Your task to perform on an android device: check google app version Image 0: 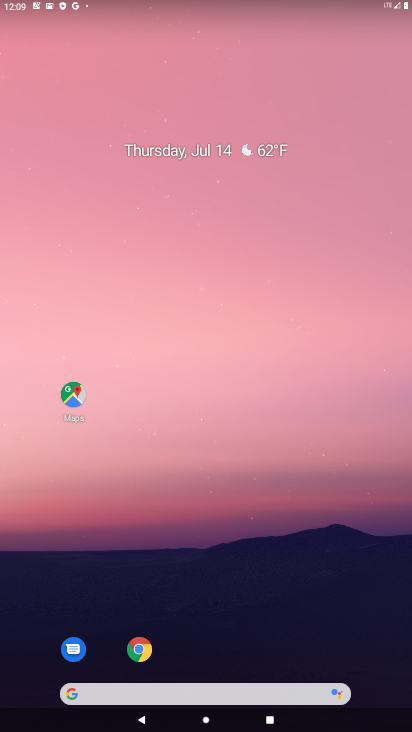
Step 0: drag from (319, 645) to (64, 181)
Your task to perform on an android device: check google app version Image 1: 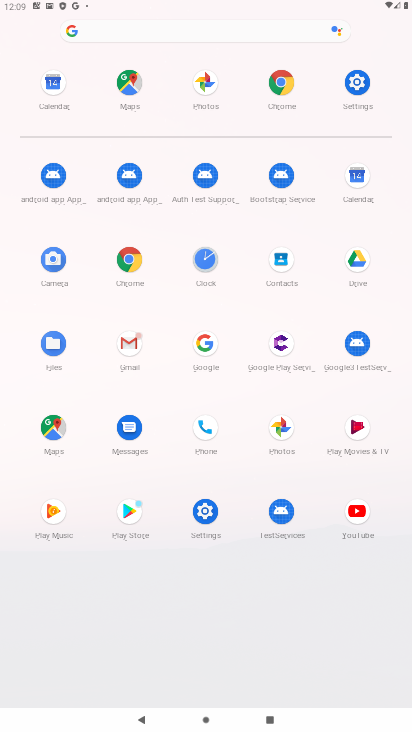
Step 1: click (204, 361)
Your task to perform on an android device: check google app version Image 2: 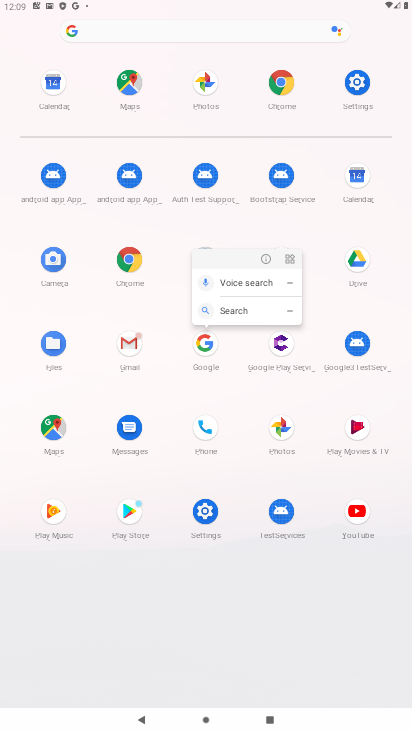
Step 2: click (270, 264)
Your task to perform on an android device: check google app version Image 3: 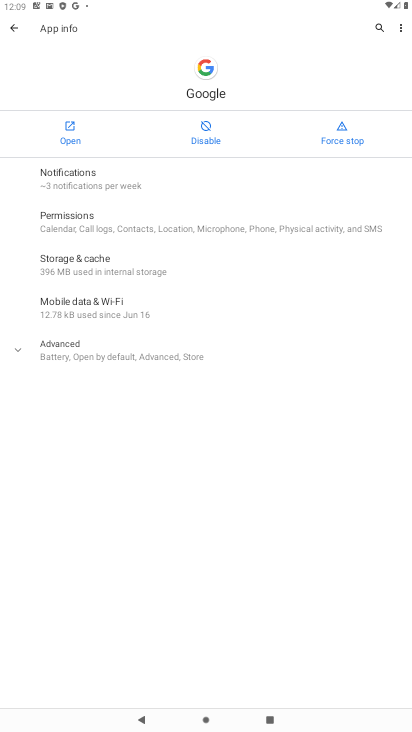
Step 3: click (69, 345)
Your task to perform on an android device: check google app version Image 4: 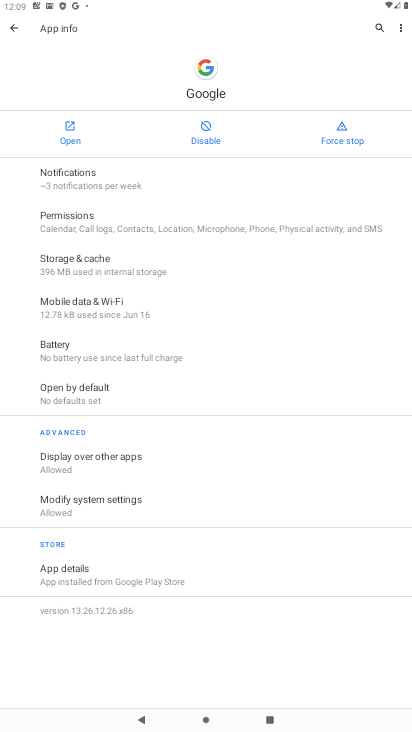
Step 4: task complete